Your task to perform on an android device: uninstall "Truecaller" Image 0: 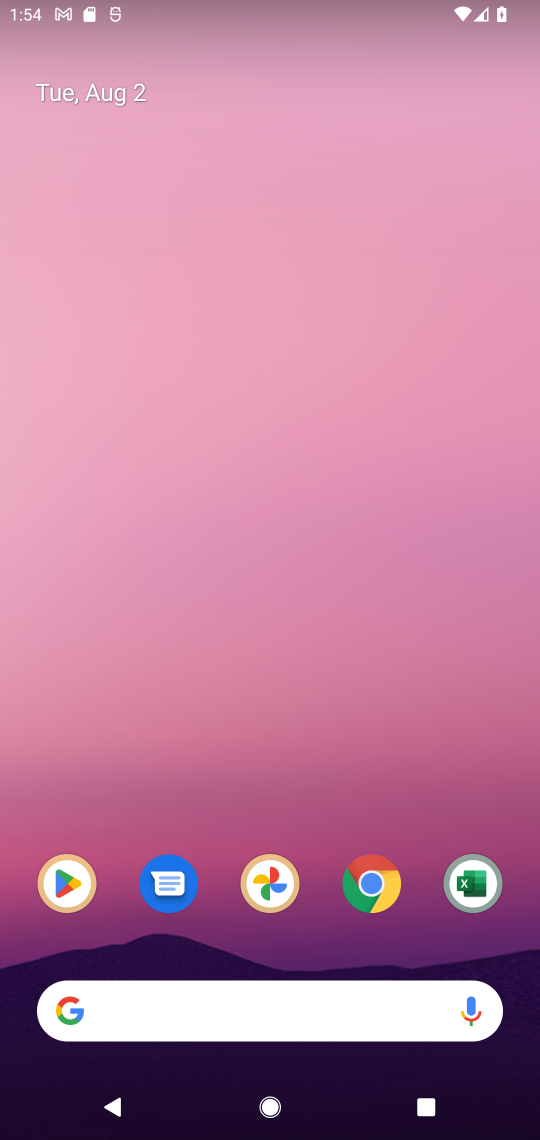
Step 0: click (70, 880)
Your task to perform on an android device: uninstall "Truecaller" Image 1: 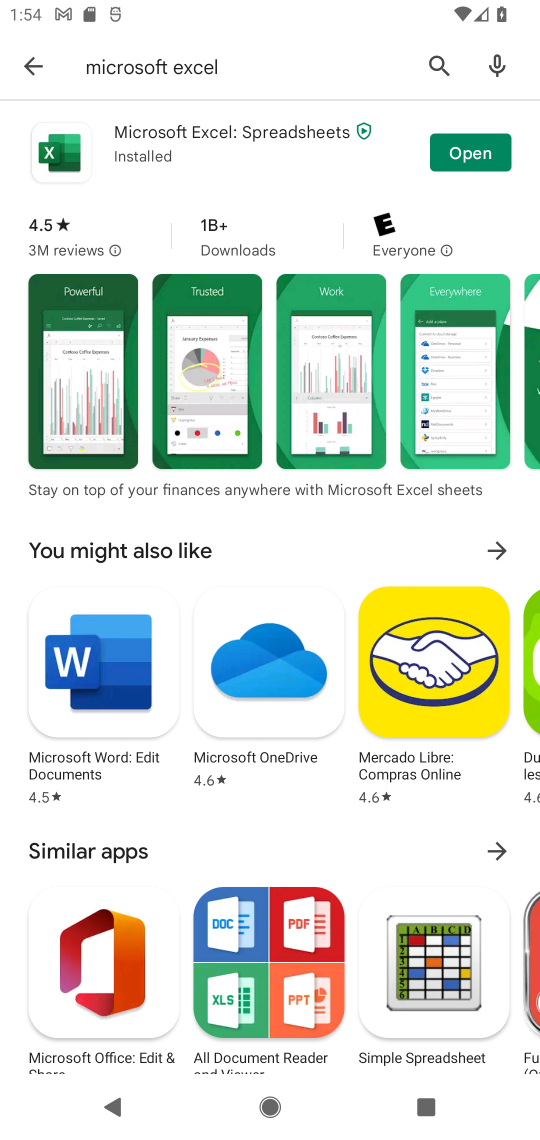
Step 1: click (432, 63)
Your task to perform on an android device: uninstall "Truecaller" Image 2: 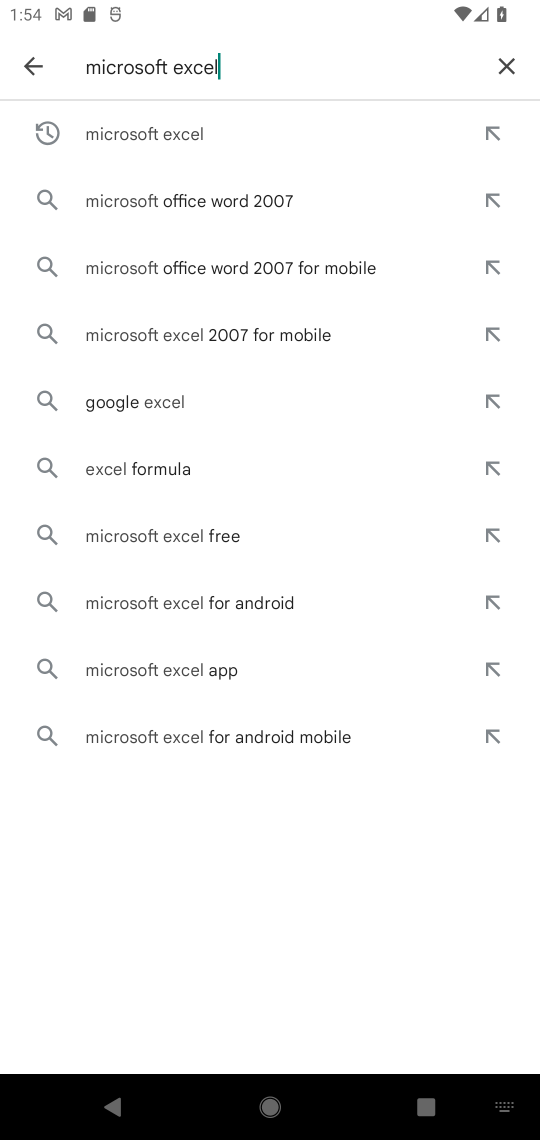
Step 2: click (507, 65)
Your task to perform on an android device: uninstall "Truecaller" Image 3: 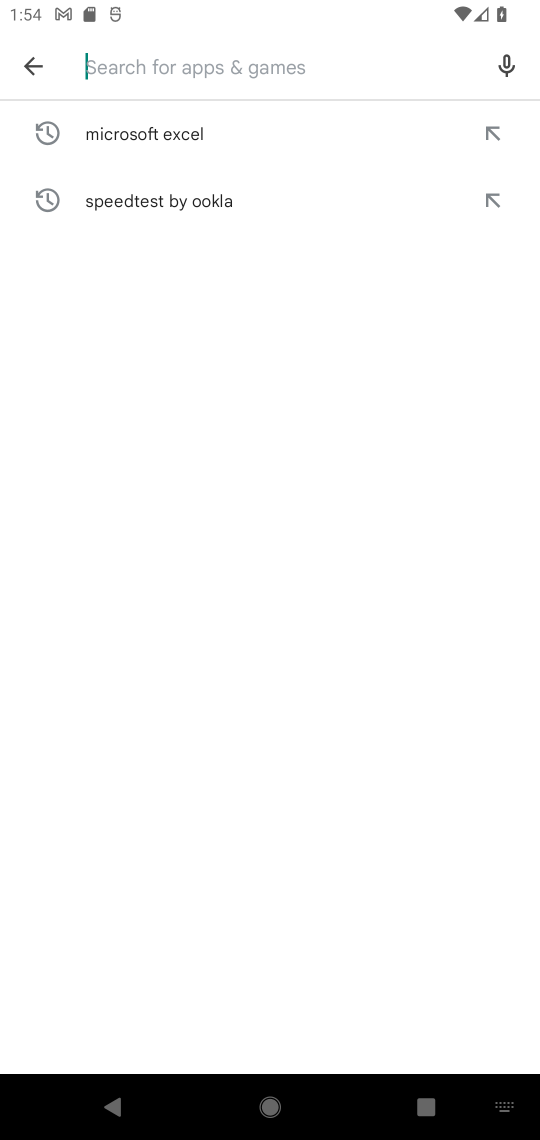
Step 3: type "Truecaller"
Your task to perform on an android device: uninstall "Truecaller" Image 4: 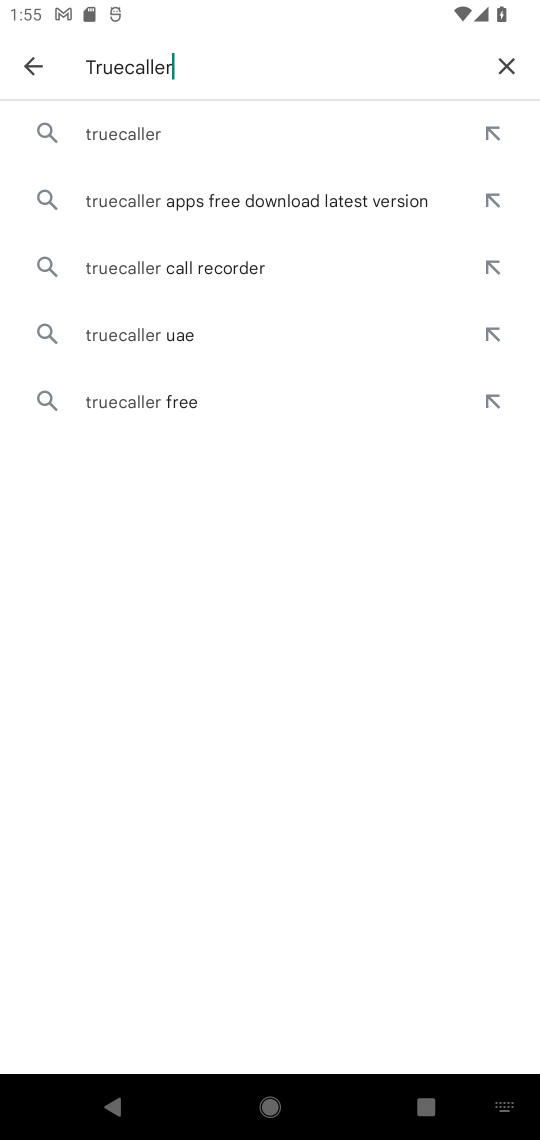
Step 4: click (96, 127)
Your task to perform on an android device: uninstall "Truecaller" Image 5: 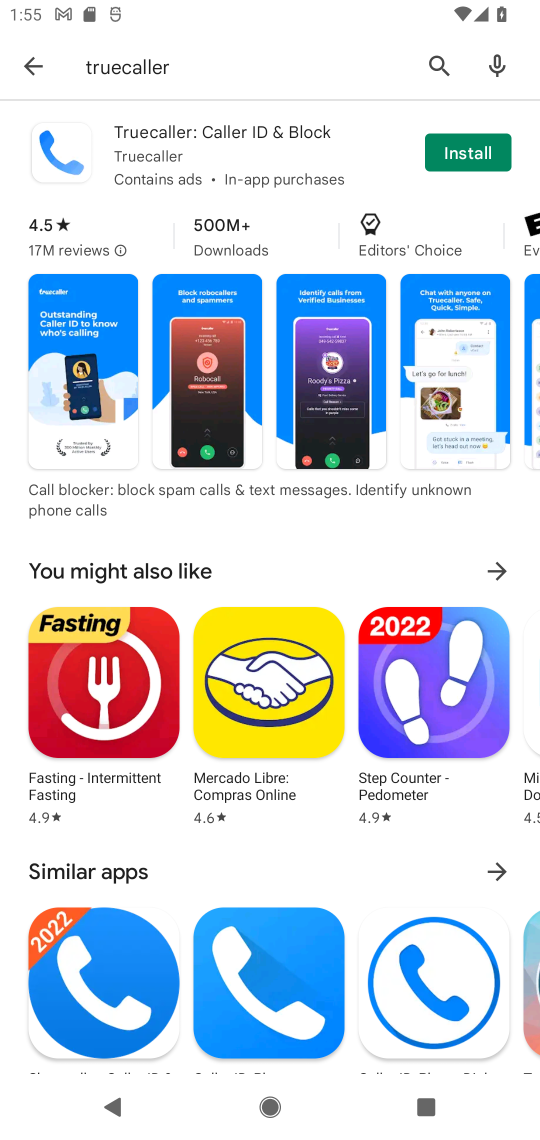
Step 5: task complete